Your task to perform on an android device: turn on bluetooth scan Image 0: 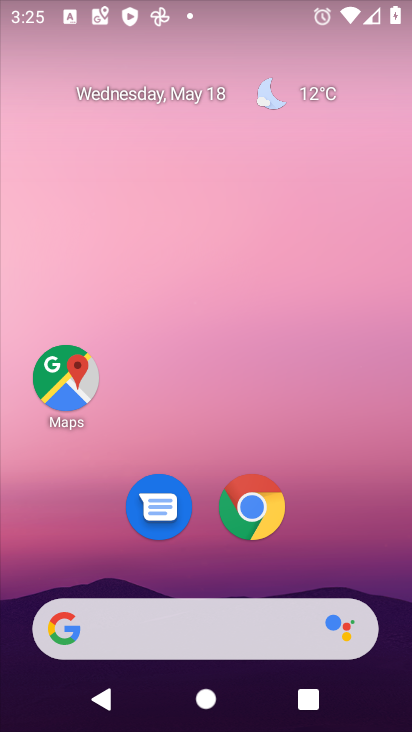
Step 0: drag from (402, 632) to (319, 137)
Your task to perform on an android device: turn on bluetooth scan Image 1: 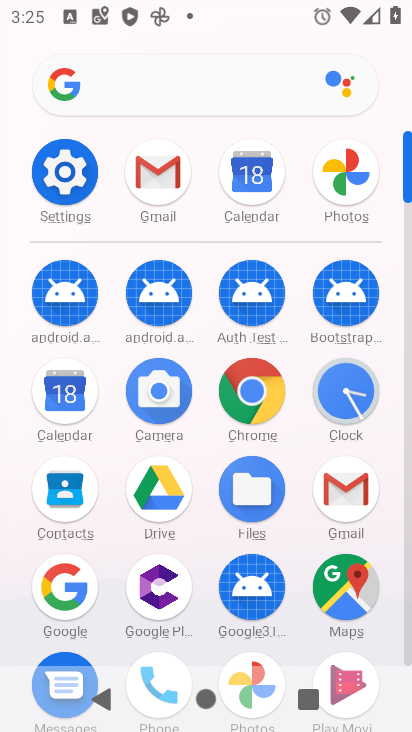
Step 1: click (406, 636)
Your task to perform on an android device: turn on bluetooth scan Image 2: 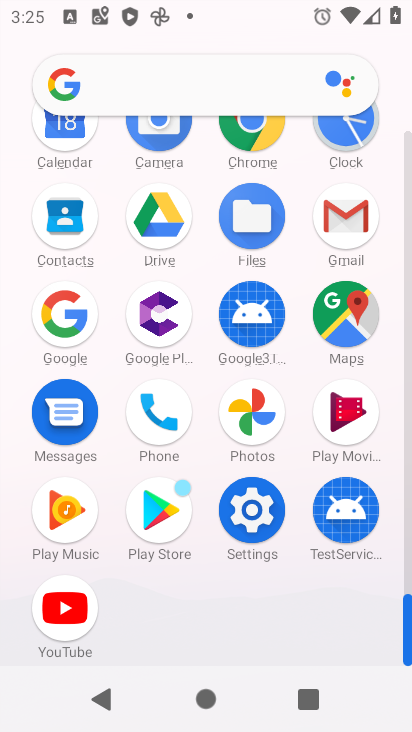
Step 2: click (253, 513)
Your task to perform on an android device: turn on bluetooth scan Image 3: 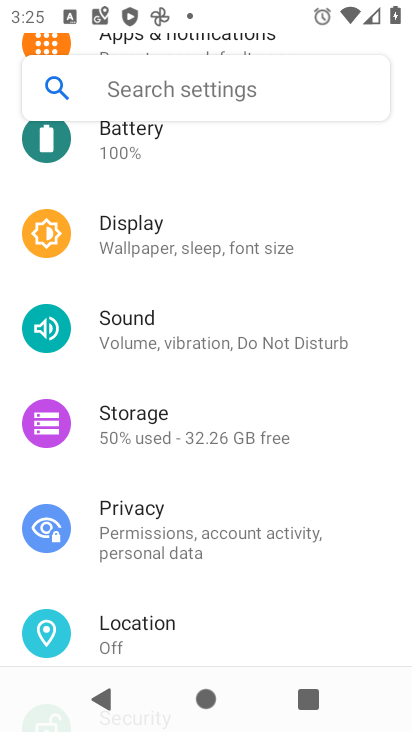
Step 3: drag from (328, 222) to (291, 147)
Your task to perform on an android device: turn on bluetooth scan Image 4: 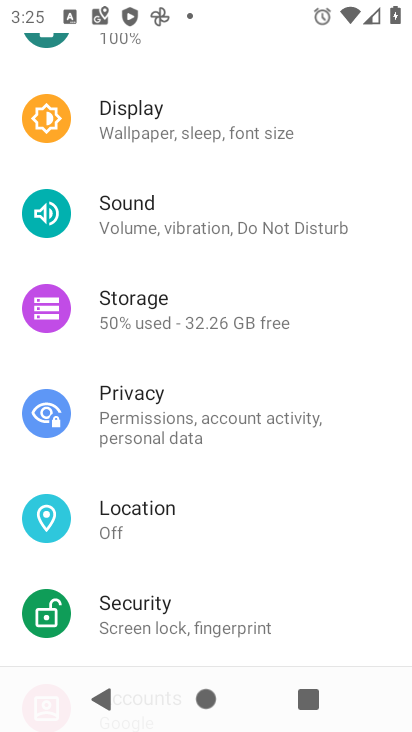
Step 4: click (134, 514)
Your task to perform on an android device: turn on bluetooth scan Image 5: 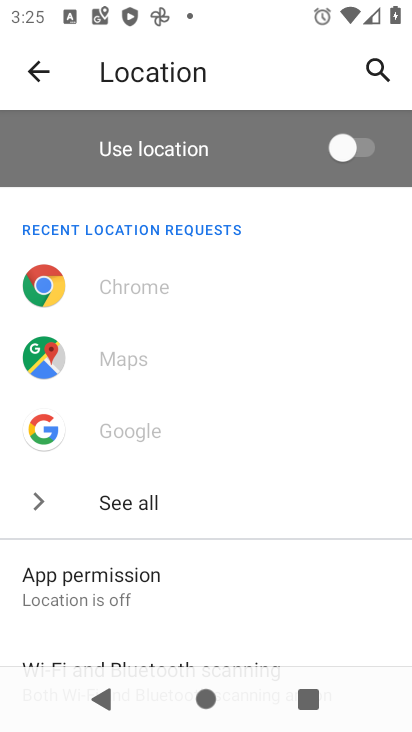
Step 5: drag from (285, 607) to (273, 279)
Your task to perform on an android device: turn on bluetooth scan Image 6: 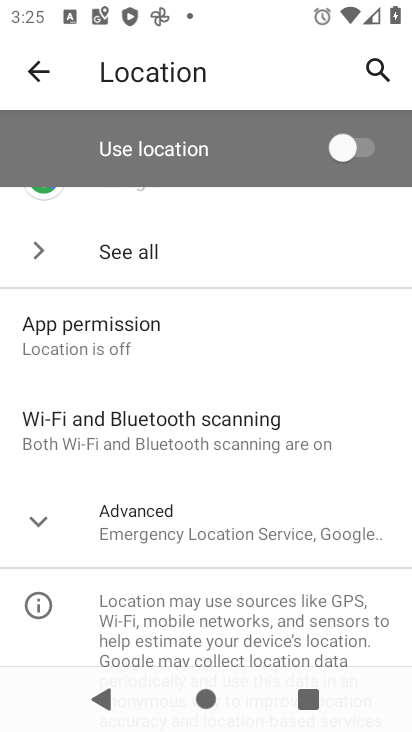
Step 6: click (116, 427)
Your task to perform on an android device: turn on bluetooth scan Image 7: 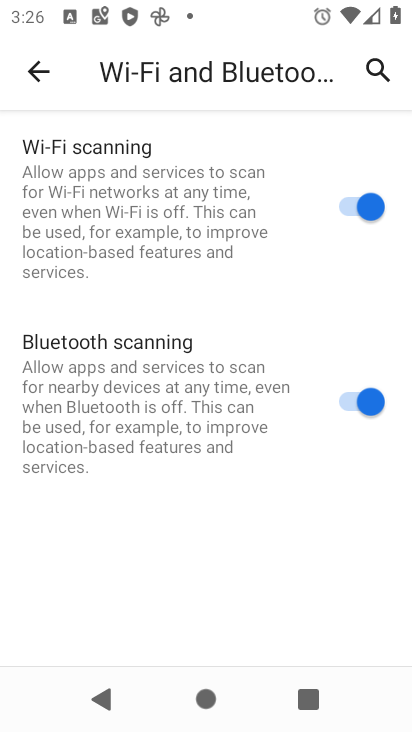
Step 7: task complete